Your task to perform on an android device: Go to Google maps Image 0: 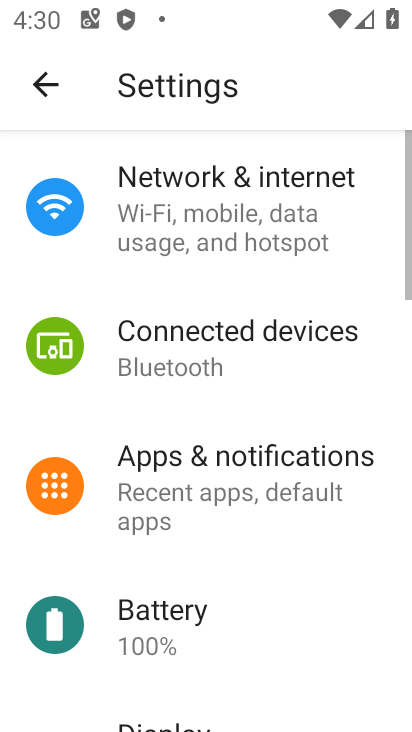
Step 0: press home button
Your task to perform on an android device: Go to Google maps Image 1: 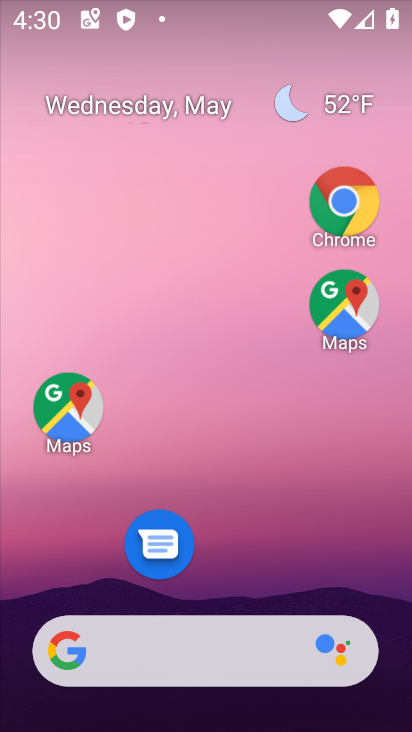
Step 1: click (76, 405)
Your task to perform on an android device: Go to Google maps Image 2: 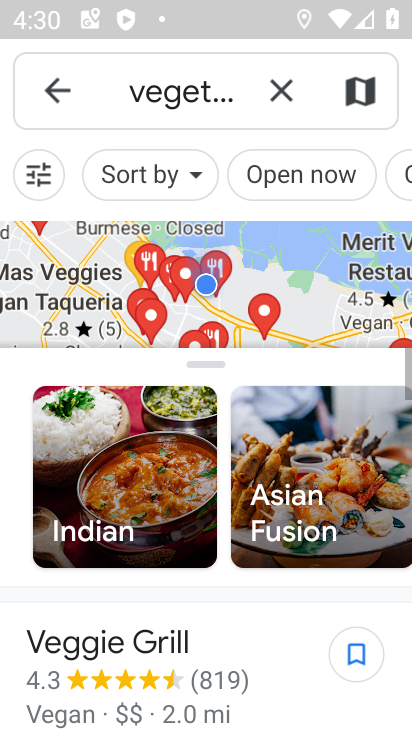
Step 2: task complete